Your task to perform on an android device: all mails in gmail Image 0: 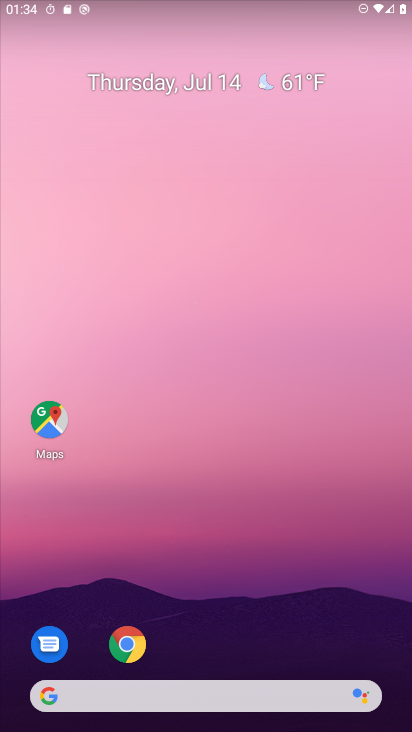
Step 0: drag from (333, 600) to (278, 123)
Your task to perform on an android device: all mails in gmail Image 1: 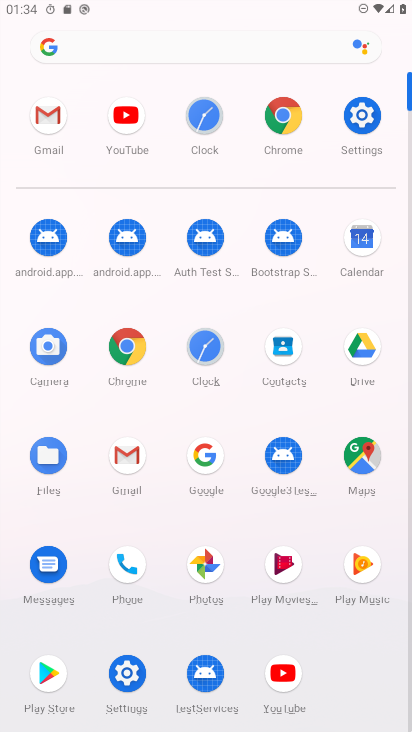
Step 1: click (53, 126)
Your task to perform on an android device: all mails in gmail Image 2: 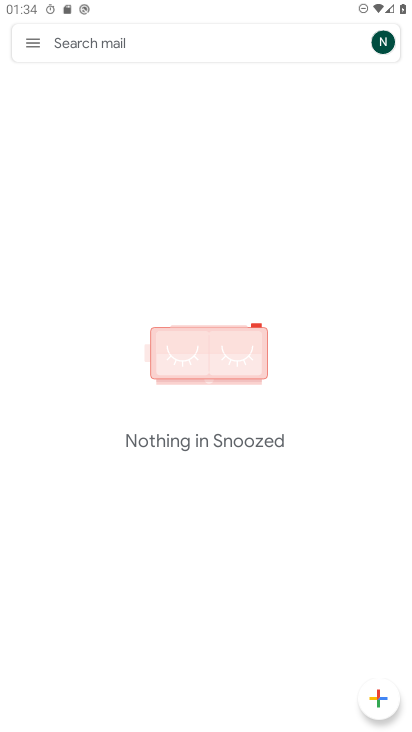
Step 2: click (34, 34)
Your task to perform on an android device: all mails in gmail Image 3: 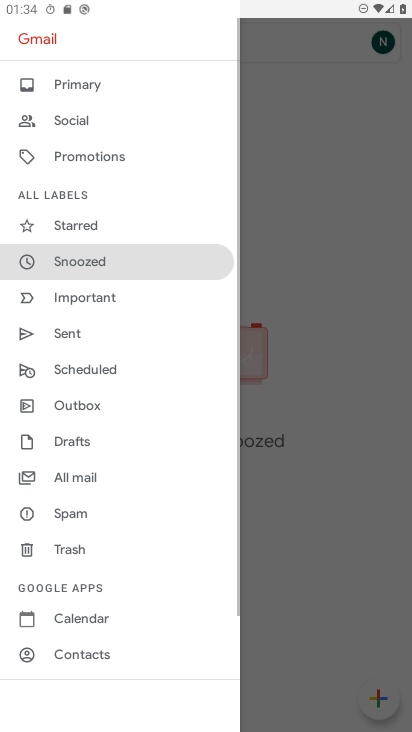
Step 3: click (80, 477)
Your task to perform on an android device: all mails in gmail Image 4: 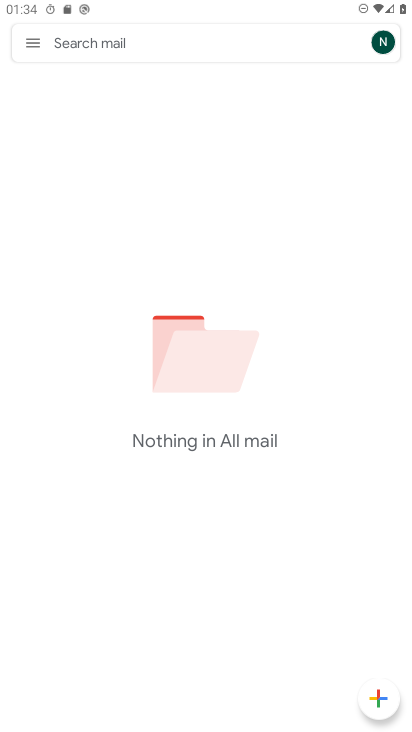
Step 4: task complete